Your task to perform on an android device: Turn on the flashlight Image 0: 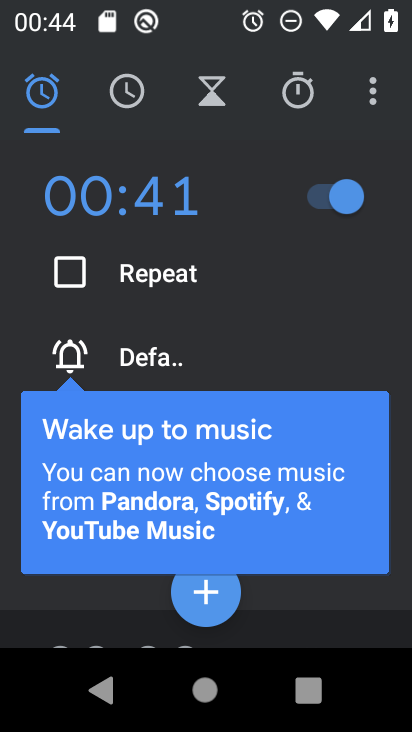
Step 0: press home button
Your task to perform on an android device: Turn on the flashlight Image 1: 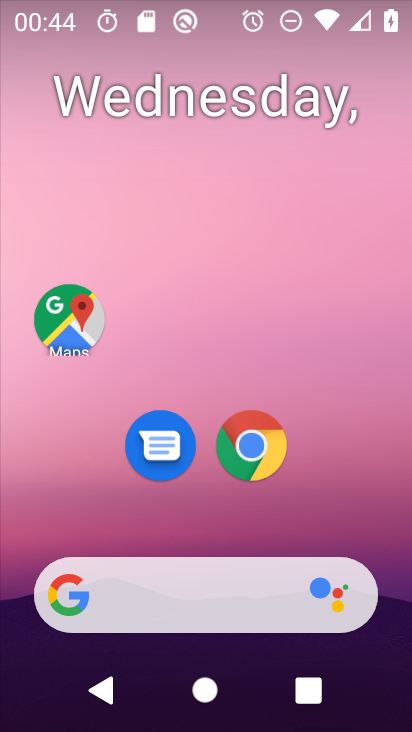
Step 1: drag from (298, 504) to (321, 90)
Your task to perform on an android device: Turn on the flashlight Image 2: 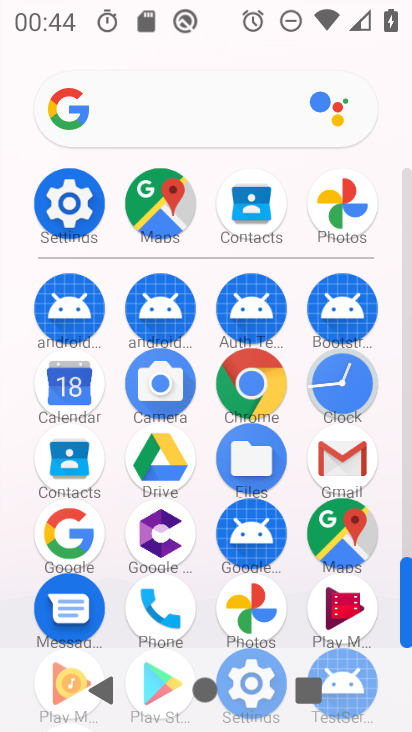
Step 2: click (86, 189)
Your task to perform on an android device: Turn on the flashlight Image 3: 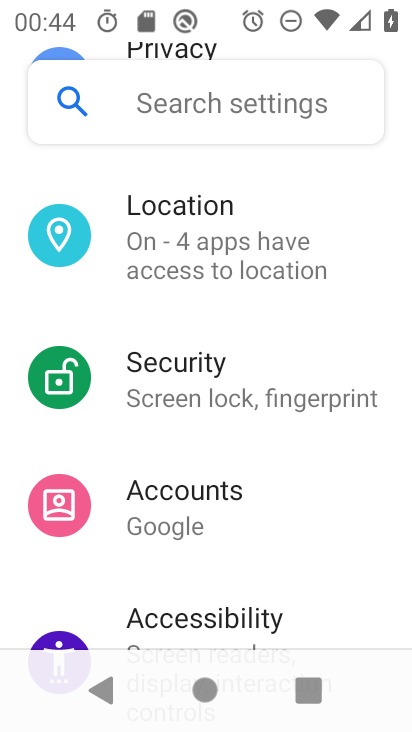
Step 3: task complete